Your task to perform on an android device: See recent photos Image 0: 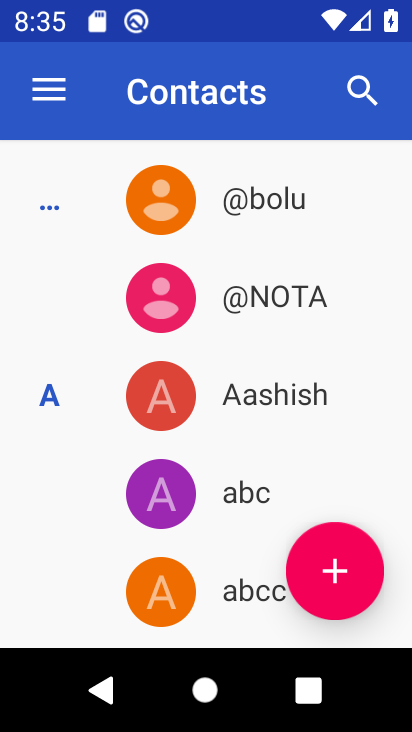
Step 0: press home button
Your task to perform on an android device: See recent photos Image 1: 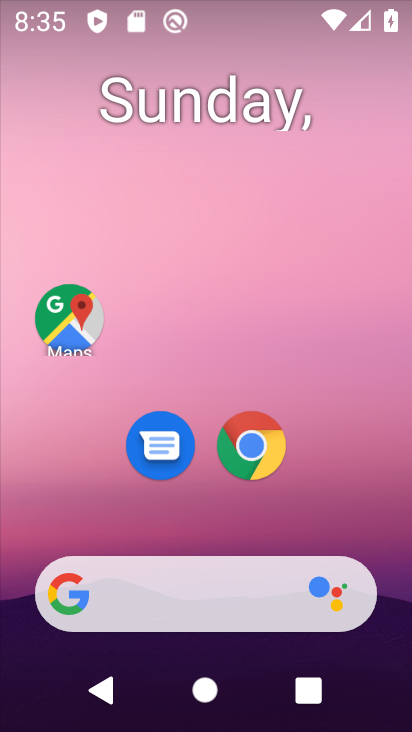
Step 1: drag from (374, 484) to (304, 93)
Your task to perform on an android device: See recent photos Image 2: 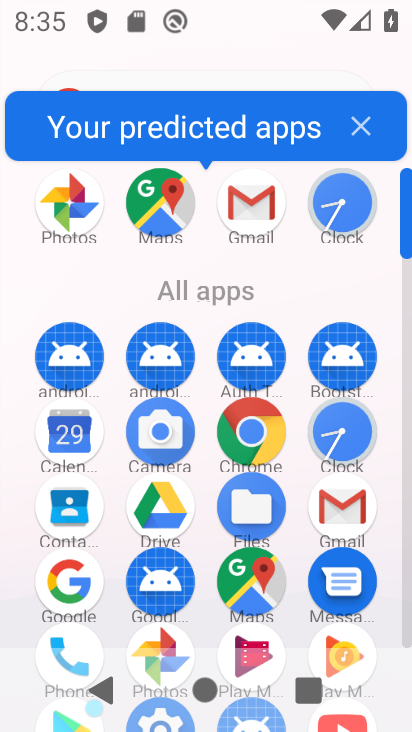
Step 2: drag from (293, 602) to (287, 386)
Your task to perform on an android device: See recent photos Image 3: 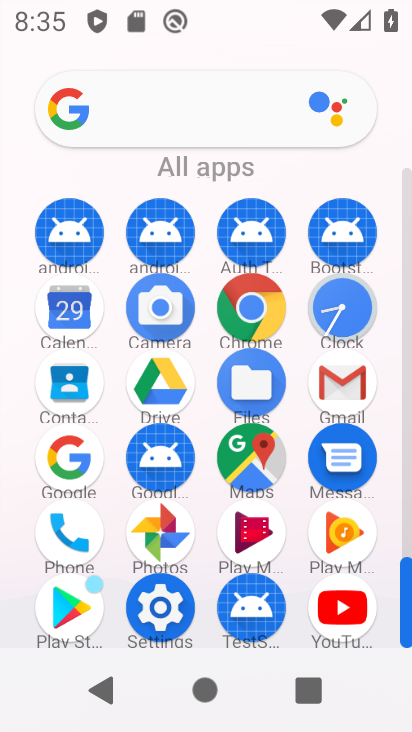
Step 3: click (163, 535)
Your task to perform on an android device: See recent photos Image 4: 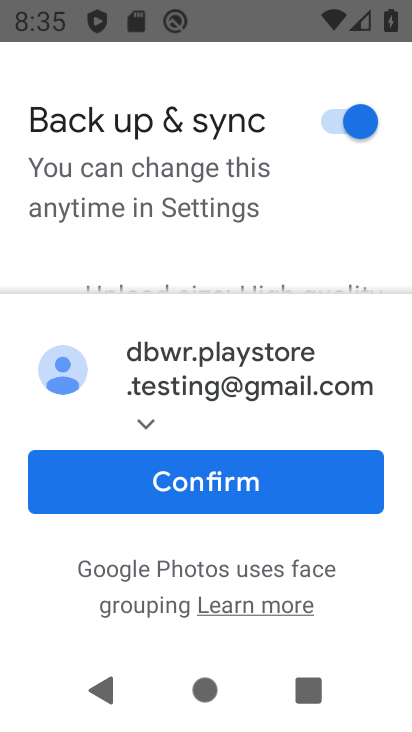
Step 4: click (224, 498)
Your task to perform on an android device: See recent photos Image 5: 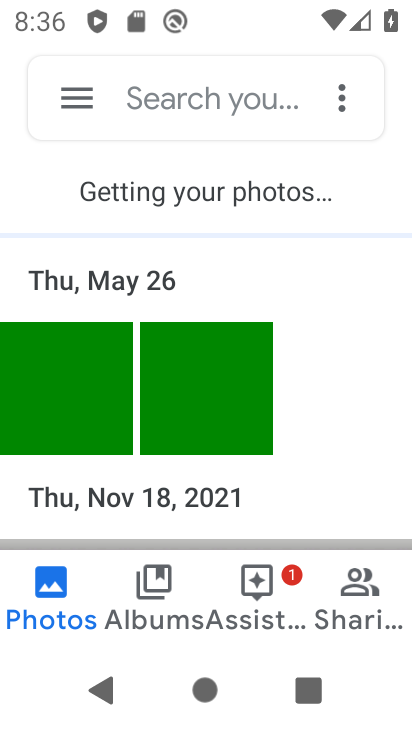
Step 5: task complete